Your task to perform on an android device: turn vacation reply on in the gmail app Image 0: 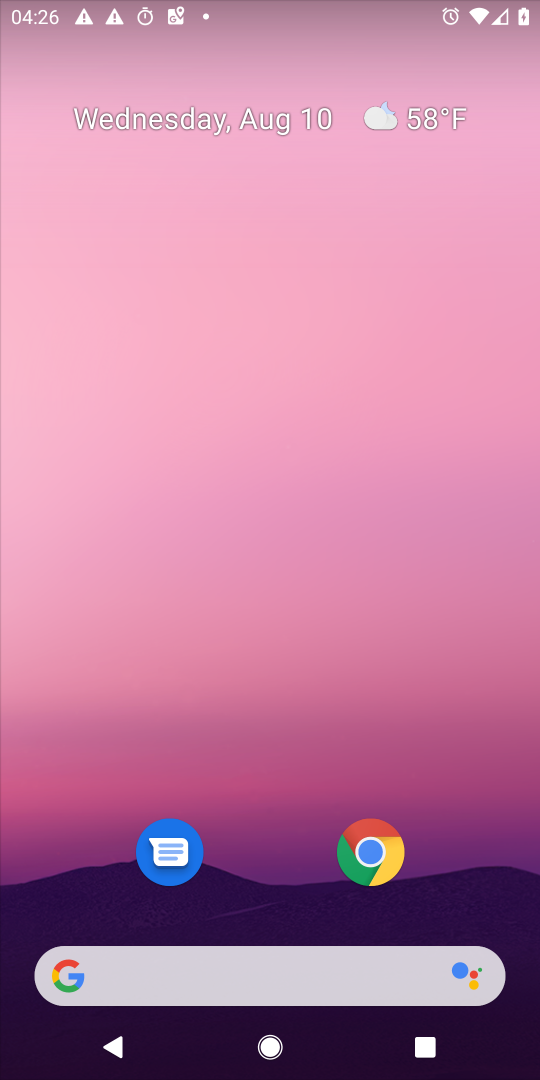
Step 0: drag from (476, 804) to (317, 221)
Your task to perform on an android device: turn vacation reply on in the gmail app Image 1: 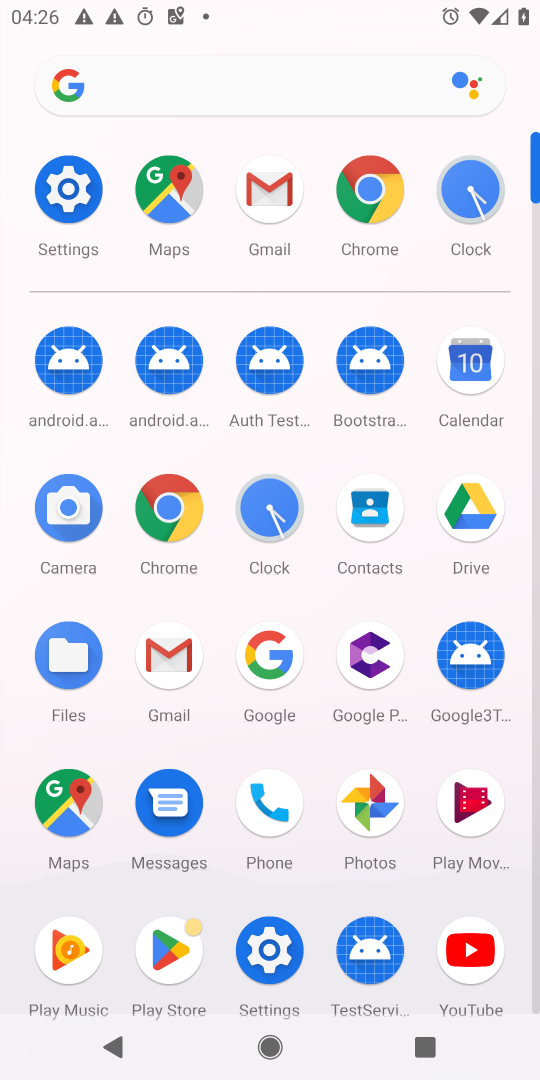
Step 1: click (165, 656)
Your task to perform on an android device: turn vacation reply on in the gmail app Image 2: 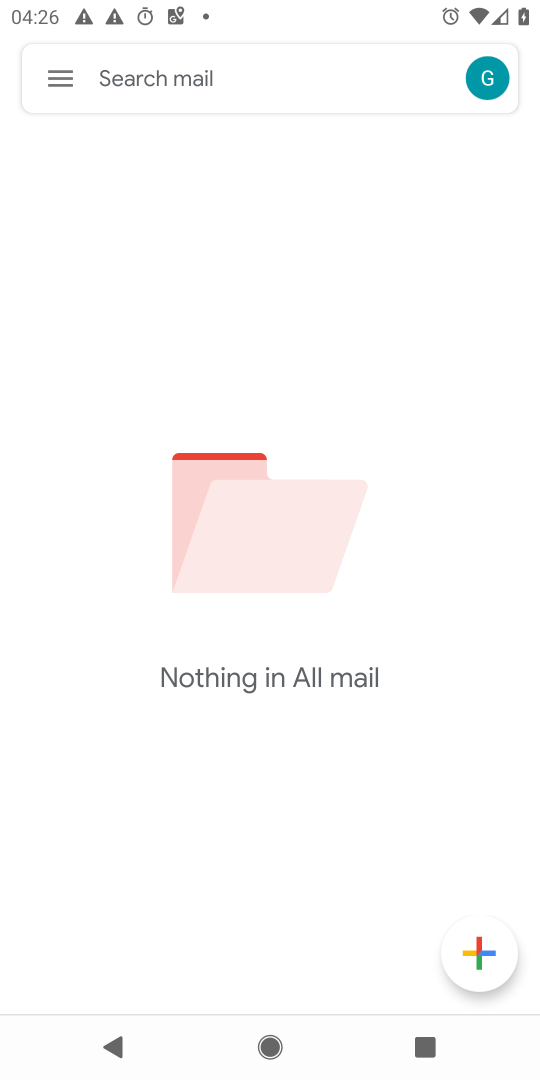
Step 2: click (67, 78)
Your task to perform on an android device: turn vacation reply on in the gmail app Image 3: 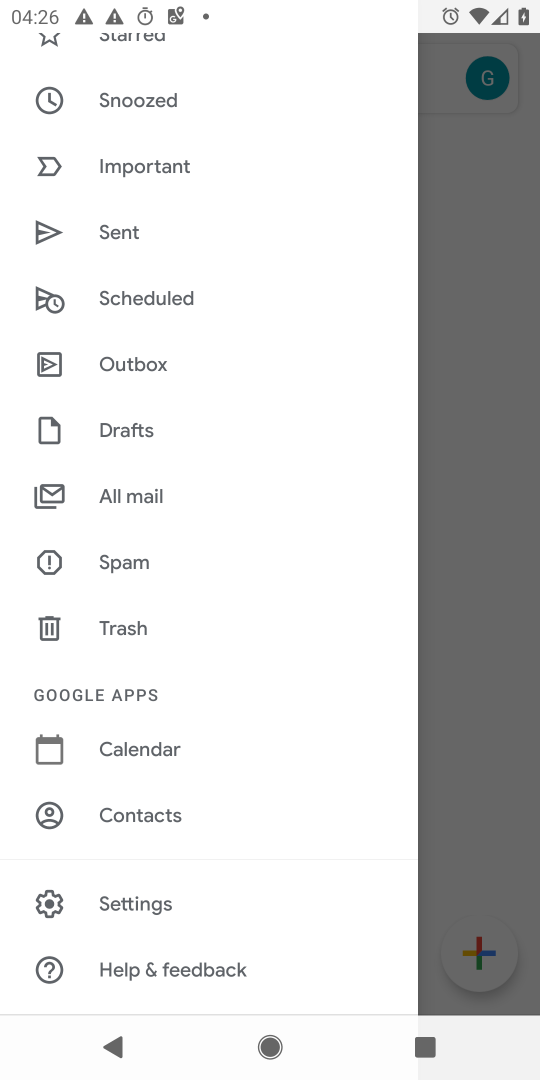
Step 3: click (164, 904)
Your task to perform on an android device: turn vacation reply on in the gmail app Image 4: 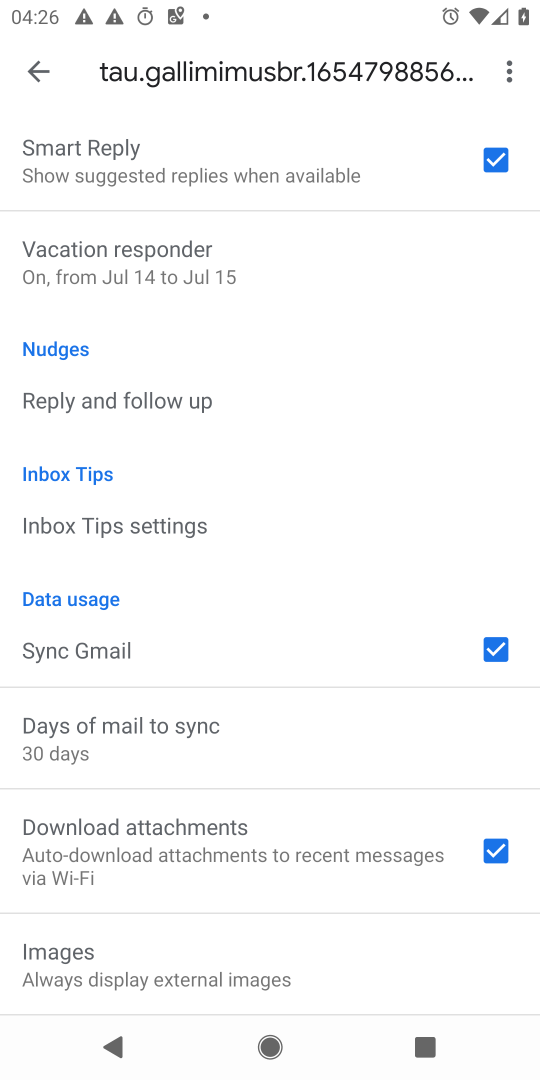
Step 4: drag from (224, 218) to (377, 608)
Your task to perform on an android device: turn vacation reply on in the gmail app Image 5: 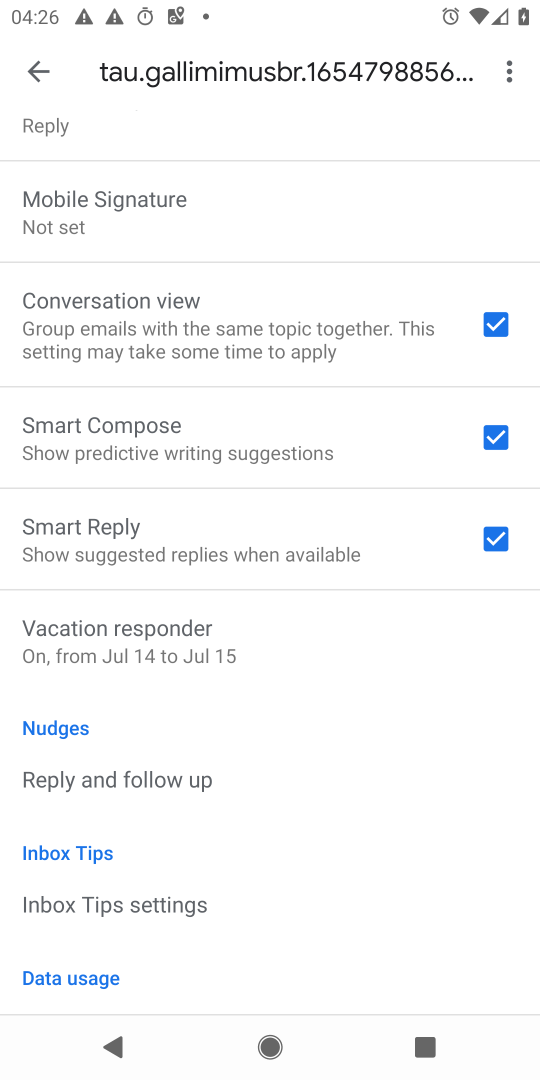
Step 5: click (162, 648)
Your task to perform on an android device: turn vacation reply on in the gmail app Image 6: 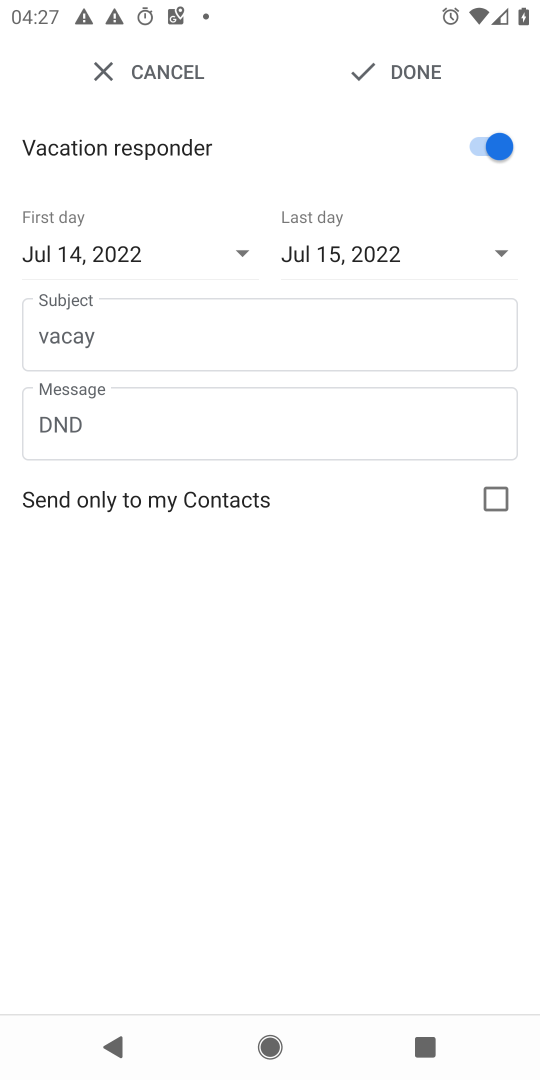
Step 6: task complete